Your task to perform on an android device: Go to Yahoo.com Image 0: 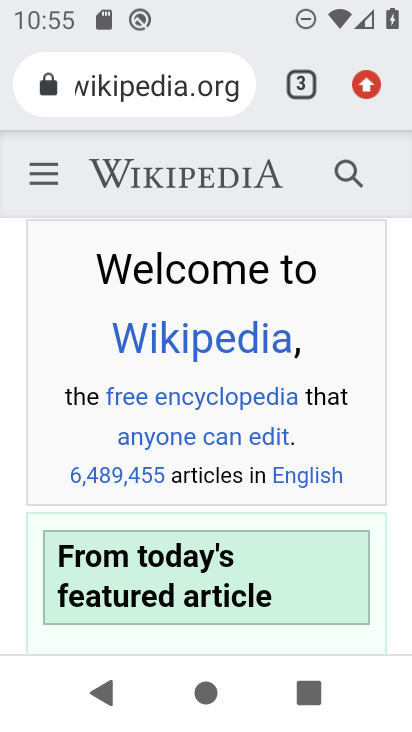
Step 0: press back button
Your task to perform on an android device: Go to Yahoo.com Image 1: 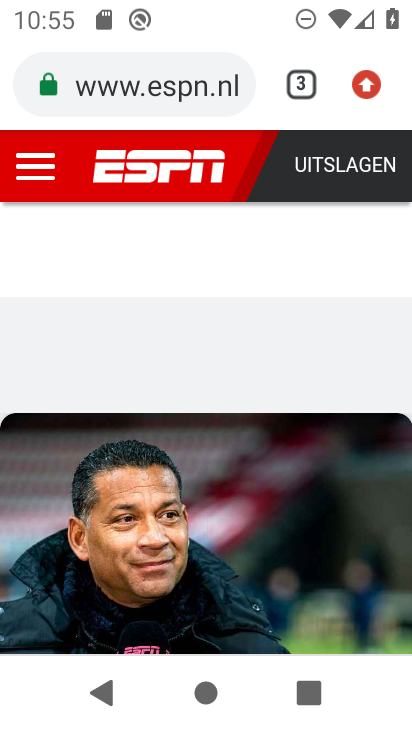
Step 1: press back button
Your task to perform on an android device: Go to Yahoo.com Image 2: 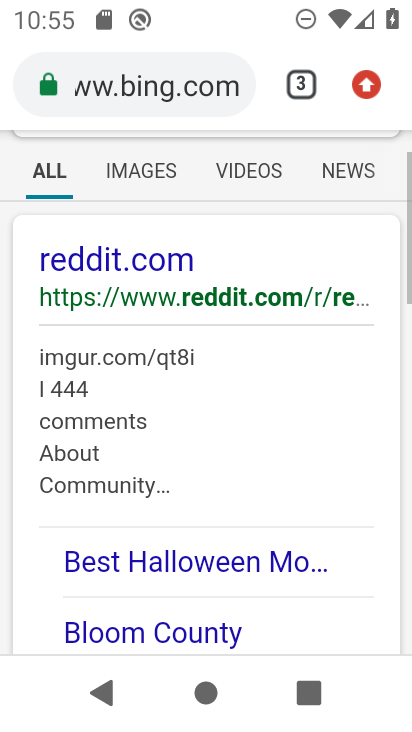
Step 2: press back button
Your task to perform on an android device: Go to Yahoo.com Image 3: 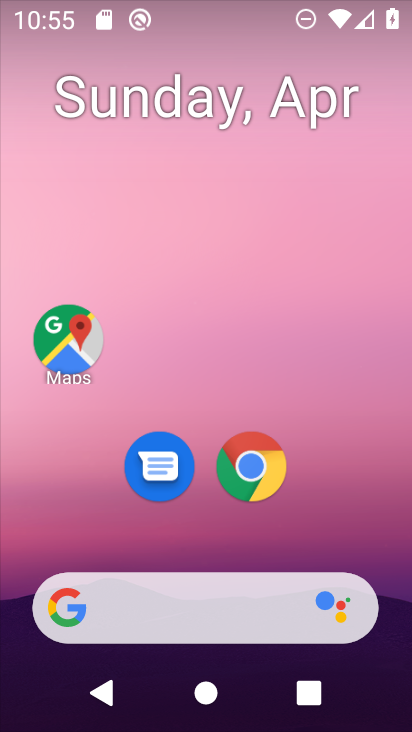
Step 3: click (265, 469)
Your task to perform on an android device: Go to Yahoo.com Image 4: 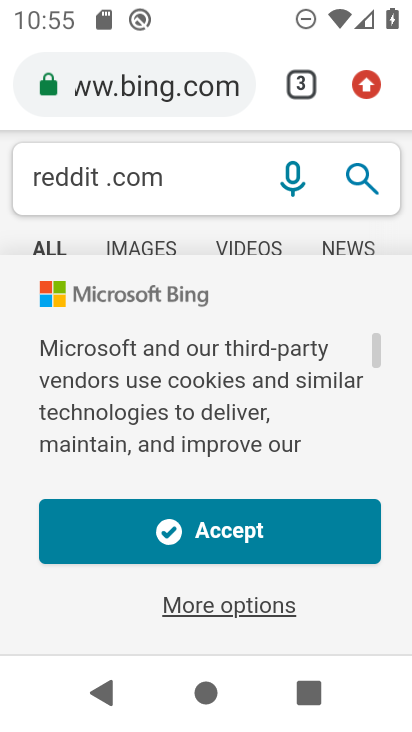
Step 4: click (175, 72)
Your task to perform on an android device: Go to Yahoo.com Image 5: 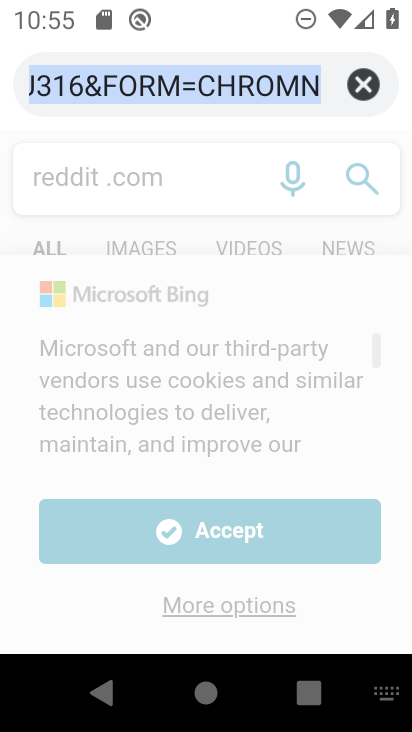
Step 5: click (375, 73)
Your task to perform on an android device: Go to Yahoo.com Image 6: 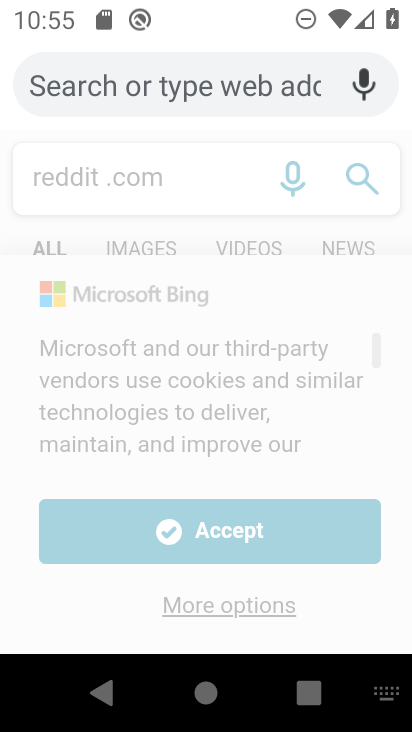
Step 6: type "yahoo.com"
Your task to perform on an android device: Go to Yahoo.com Image 7: 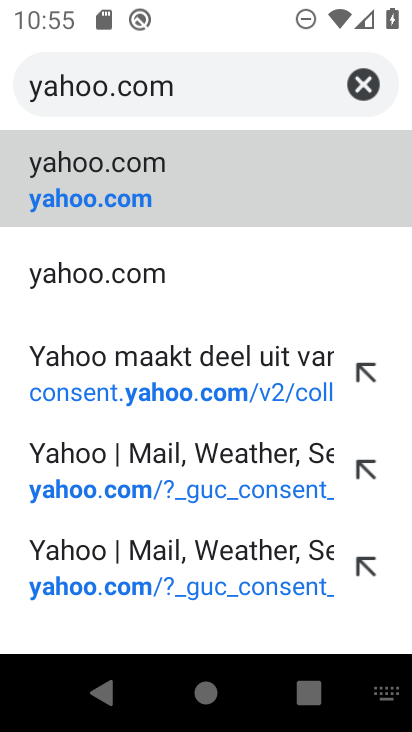
Step 7: click (97, 189)
Your task to perform on an android device: Go to Yahoo.com Image 8: 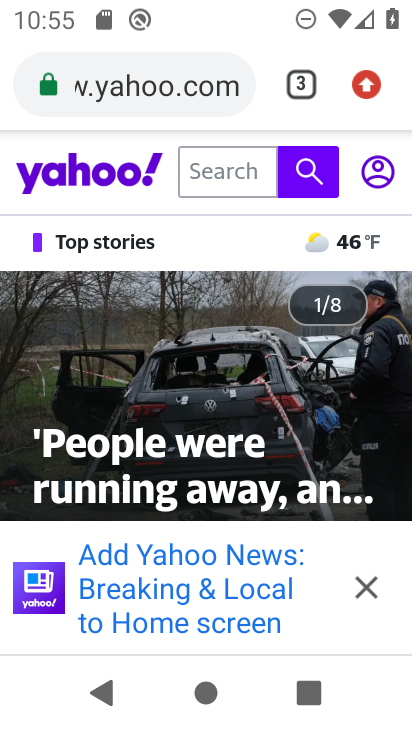
Step 8: task complete